Your task to perform on an android device: Go to Maps Image 0: 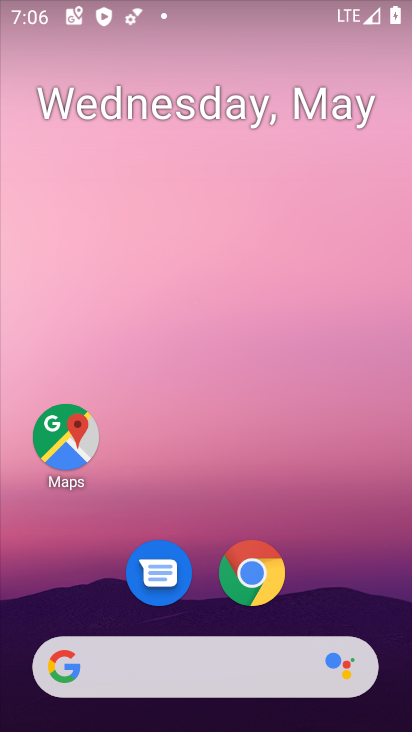
Step 0: click (64, 444)
Your task to perform on an android device: Go to Maps Image 1: 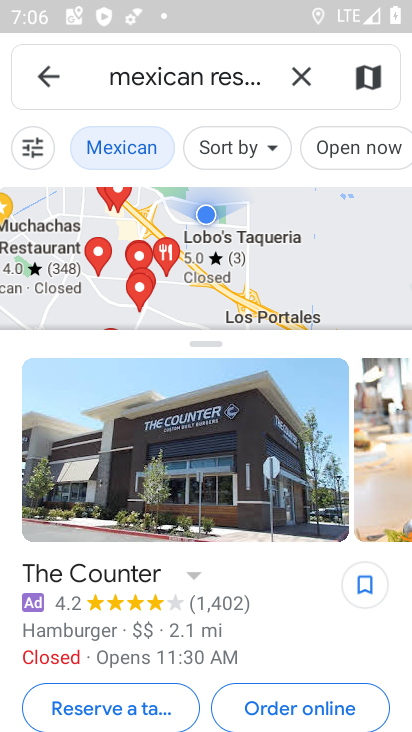
Step 1: task complete